Your task to perform on an android device: Open Google Maps and go to "Timeline" Image 0: 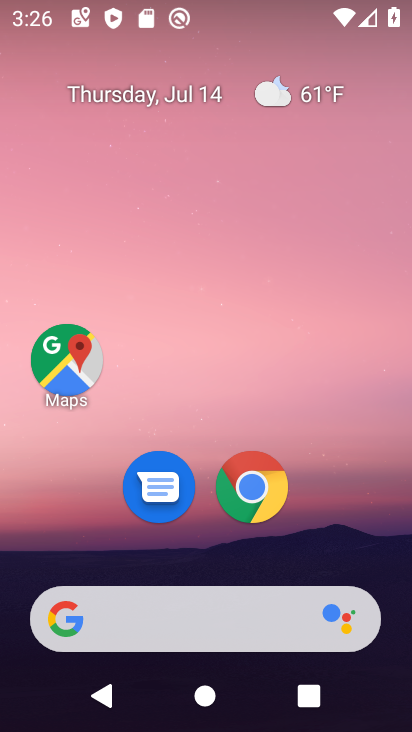
Step 0: click (50, 333)
Your task to perform on an android device: Open Google Maps and go to "Timeline" Image 1: 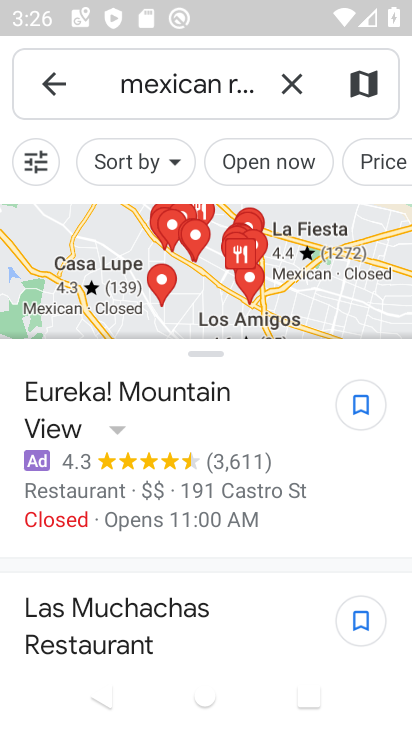
Step 1: click (286, 74)
Your task to perform on an android device: Open Google Maps and go to "Timeline" Image 2: 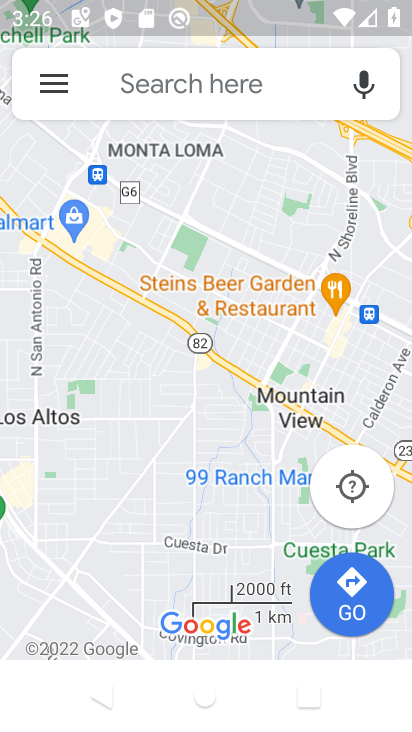
Step 2: click (193, 78)
Your task to perform on an android device: Open Google Maps and go to "Timeline" Image 3: 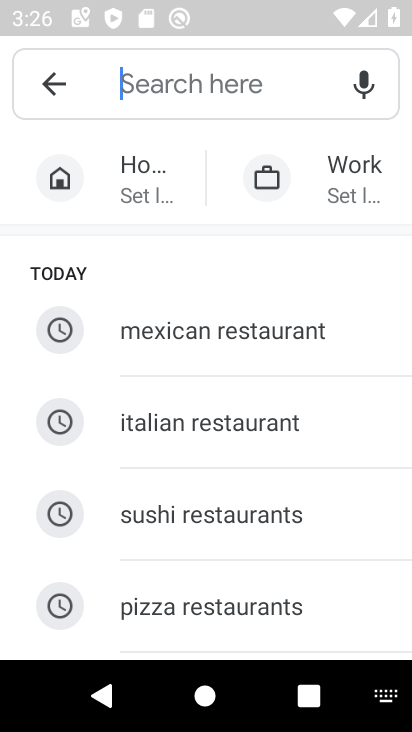
Step 3: click (57, 69)
Your task to perform on an android device: Open Google Maps and go to "Timeline" Image 4: 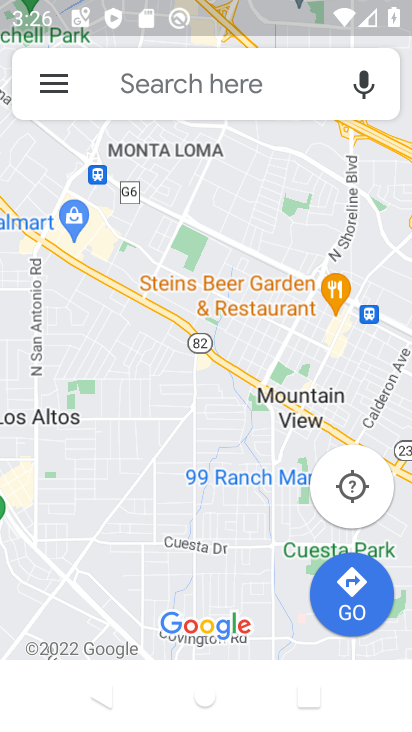
Step 4: click (73, 80)
Your task to perform on an android device: Open Google Maps and go to "Timeline" Image 5: 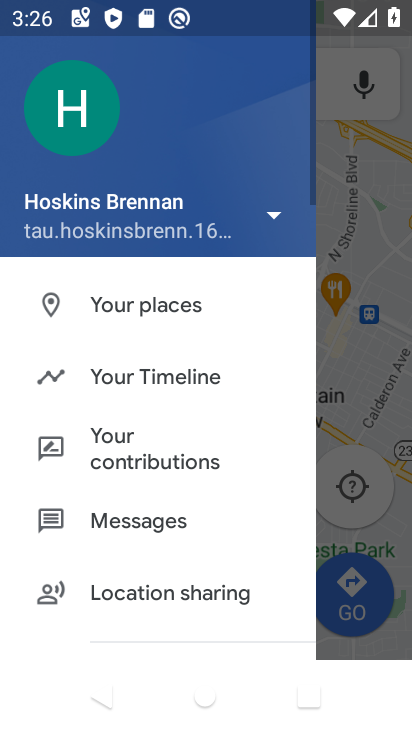
Step 5: click (99, 380)
Your task to perform on an android device: Open Google Maps and go to "Timeline" Image 6: 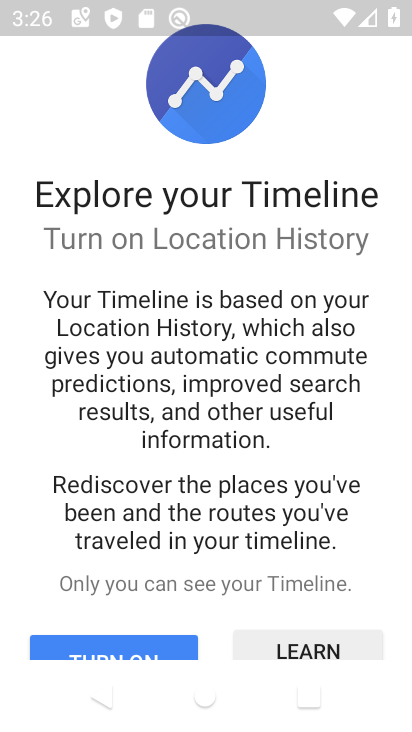
Step 6: task complete